Your task to perform on an android device: Check the news Image 0: 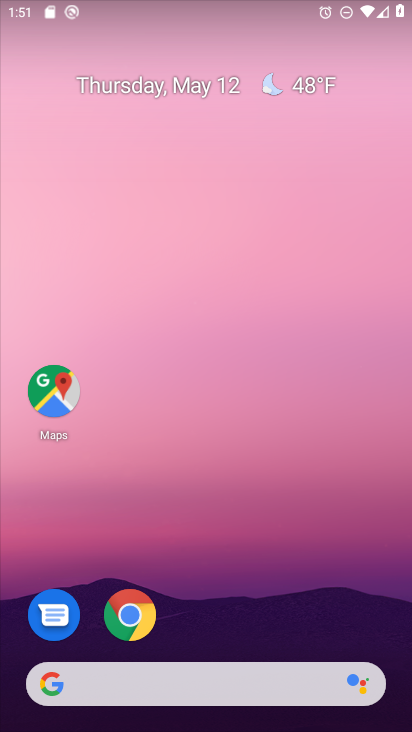
Step 0: drag from (331, 616) to (329, 13)
Your task to perform on an android device: Check the news Image 1: 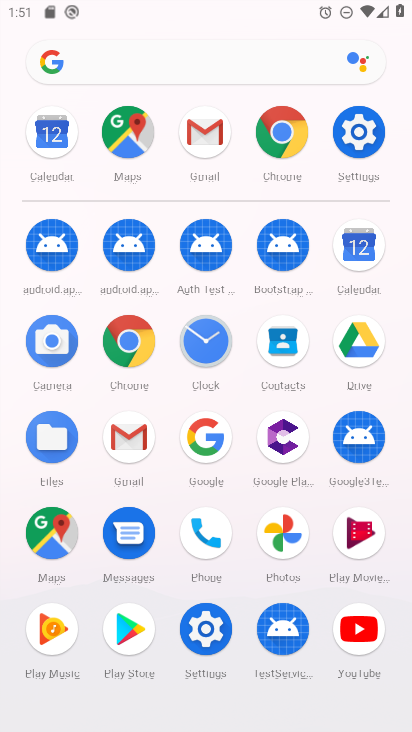
Step 1: click (124, 349)
Your task to perform on an android device: Check the news Image 2: 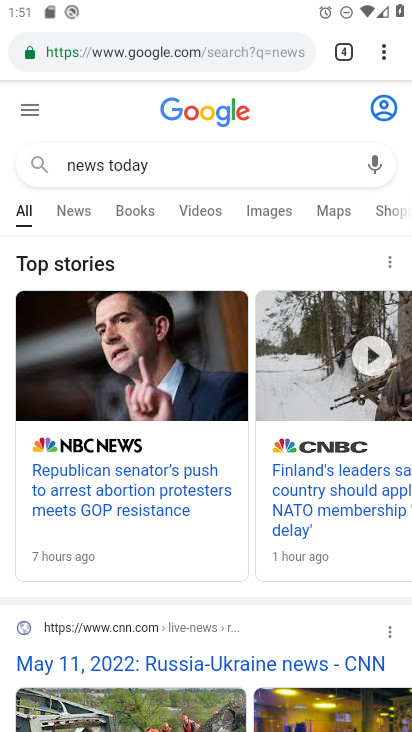
Step 2: click (146, 49)
Your task to perform on an android device: Check the news Image 3: 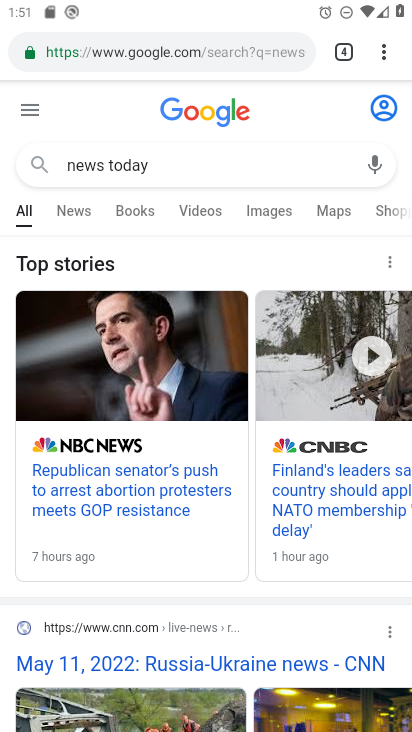
Step 3: click (146, 49)
Your task to perform on an android device: Check the news Image 4: 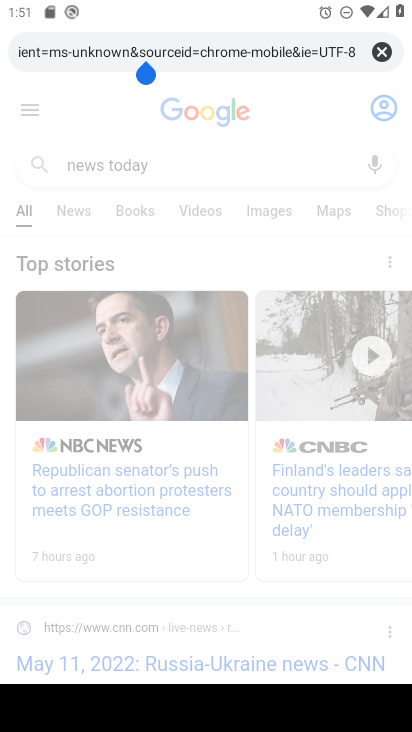
Step 4: click (382, 46)
Your task to perform on an android device: Check the news Image 5: 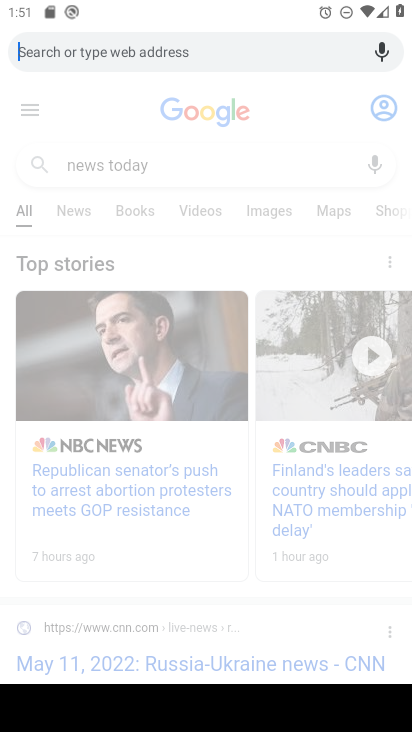
Step 5: type "check the news"
Your task to perform on an android device: Check the news Image 6: 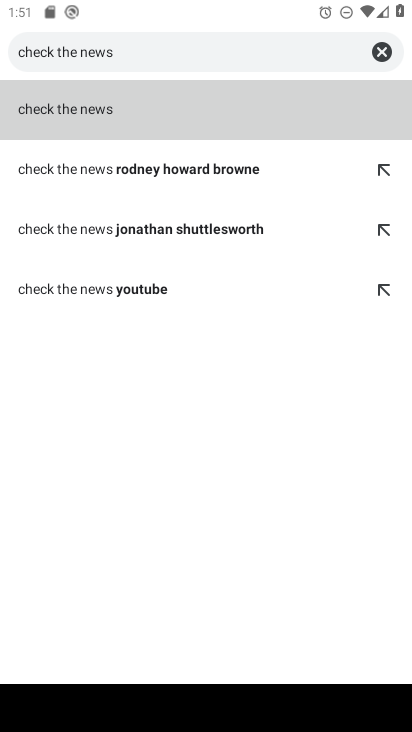
Step 6: click (303, 110)
Your task to perform on an android device: Check the news Image 7: 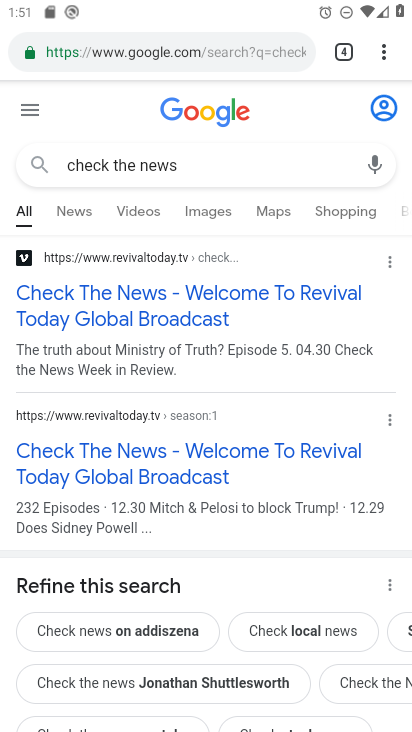
Step 7: task complete